Your task to perform on an android device: Open the calendar and show me this week's events Image 0: 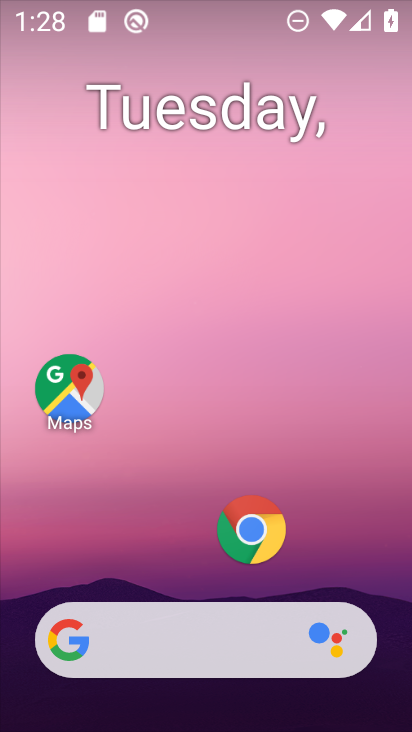
Step 0: drag from (207, 684) to (276, 289)
Your task to perform on an android device: Open the calendar and show me this week's events Image 1: 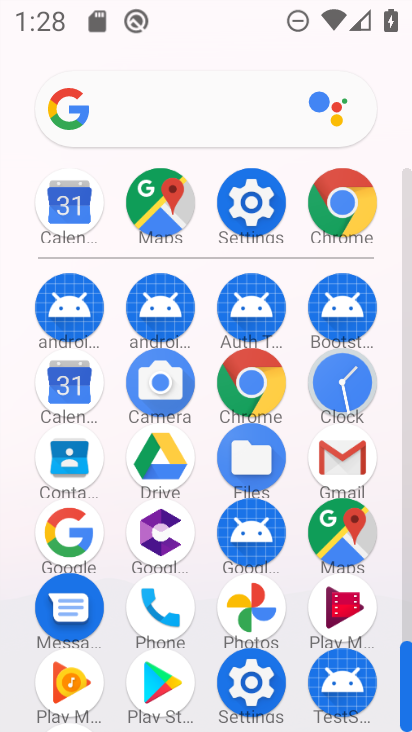
Step 1: click (72, 371)
Your task to perform on an android device: Open the calendar and show me this week's events Image 2: 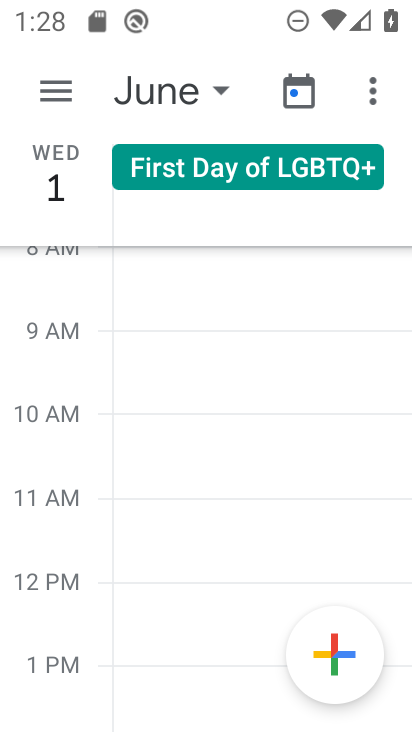
Step 2: task complete